Your task to perform on an android device: change the upload size in google photos Image 0: 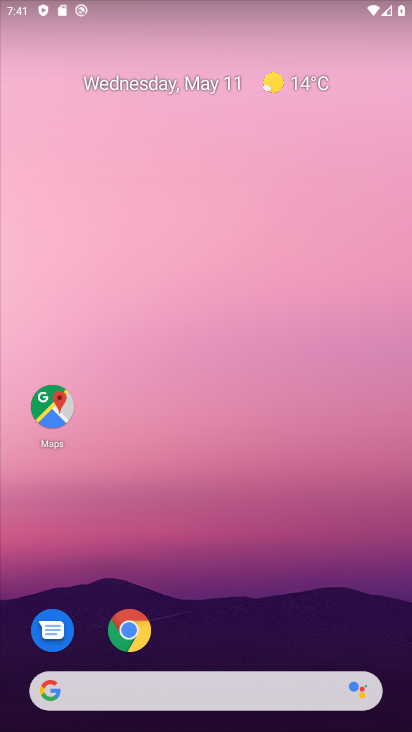
Step 0: drag from (246, 222) to (202, 109)
Your task to perform on an android device: change the upload size in google photos Image 1: 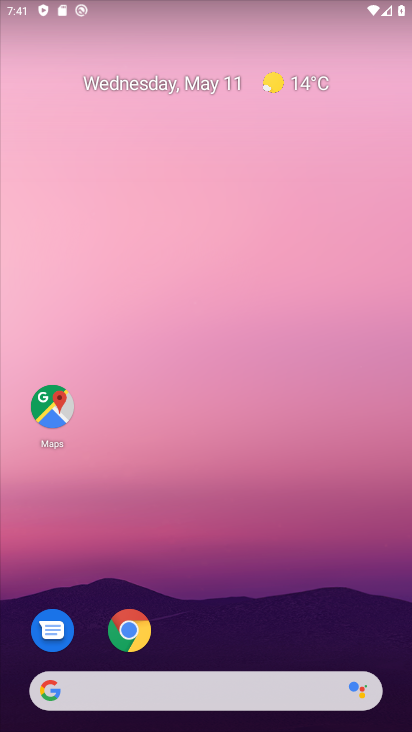
Step 1: drag from (172, 161) to (136, 82)
Your task to perform on an android device: change the upload size in google photos Image 2: 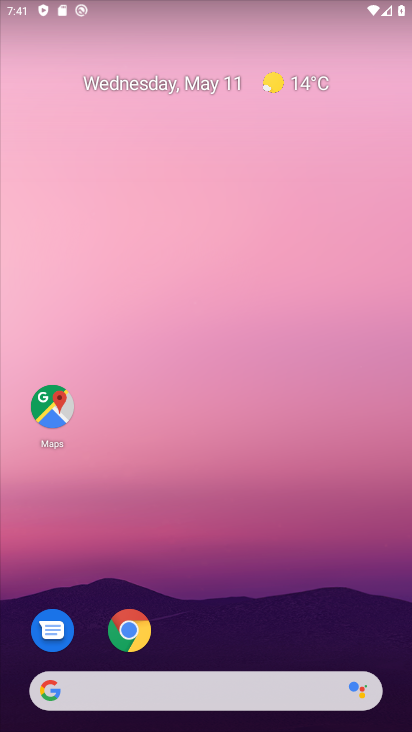
Step 2: drag from (323, 631) to (125, 1)
Your task to perform on an android device: change the upload size in google photos Image 3: 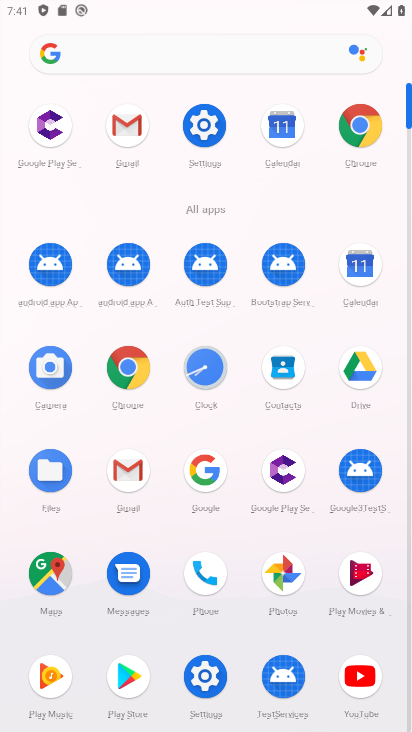
Step 3: drag from (265, 604) to (129, 14)
Your task to perform on an android device: change the upload size in google photos Image 4: 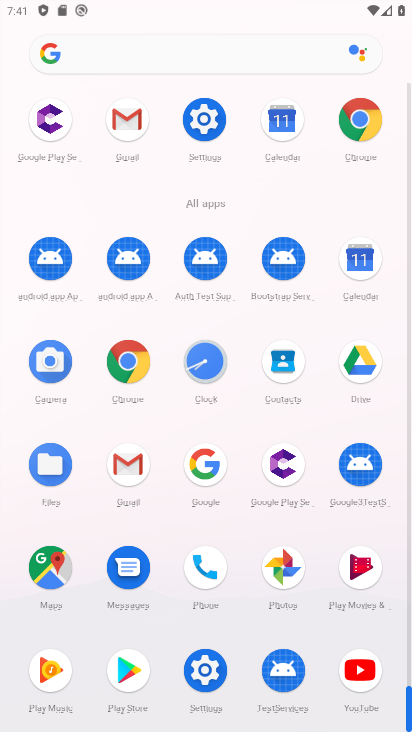
Step 4: click (273, 557)
Your task to perform on an android device: change the upload size in google photos Image 5: 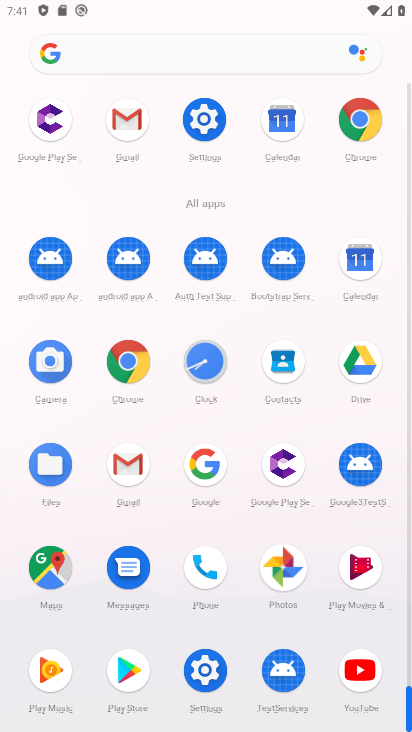
Step 5: click (274, 557)
Your task to perform on an android device: change the upload size in google photos Image 6: 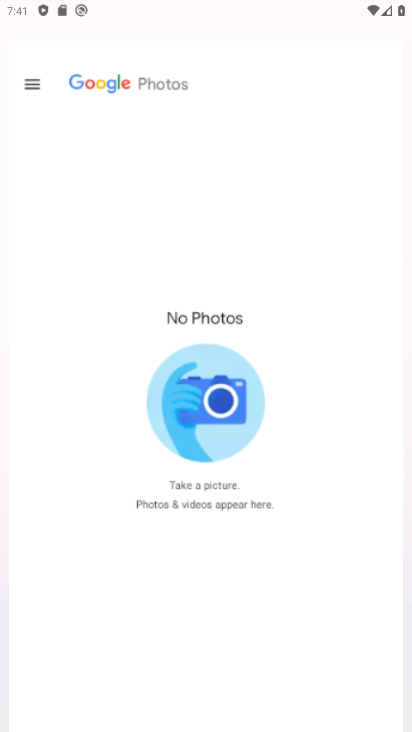
Step 6: click (275, 556)
Your task to perform on an android device: change the upload size in google photos Image 7: 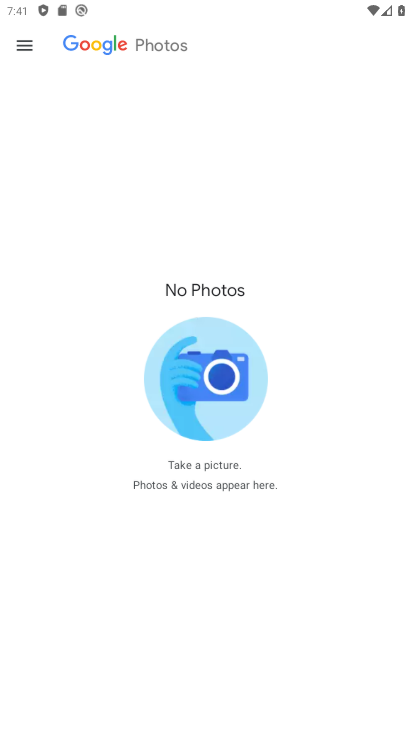
Step 7: click (279, 555)
Your task to perform on an android device: change the upload size in google photos Image 8: 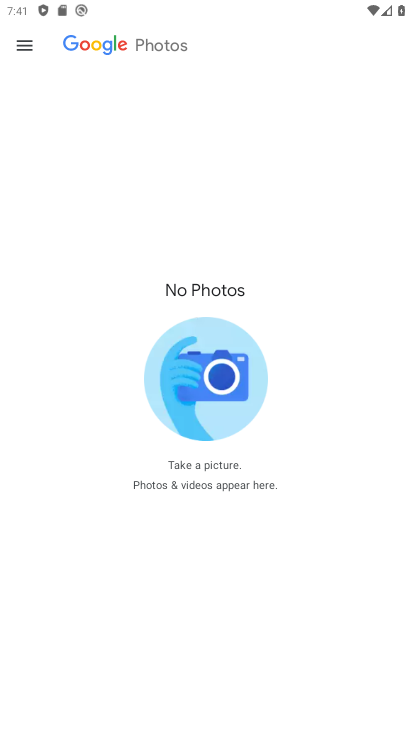
Step 8: click (28, 47)
Your task to perform on an android device: change the upload size in google photos Image 9: 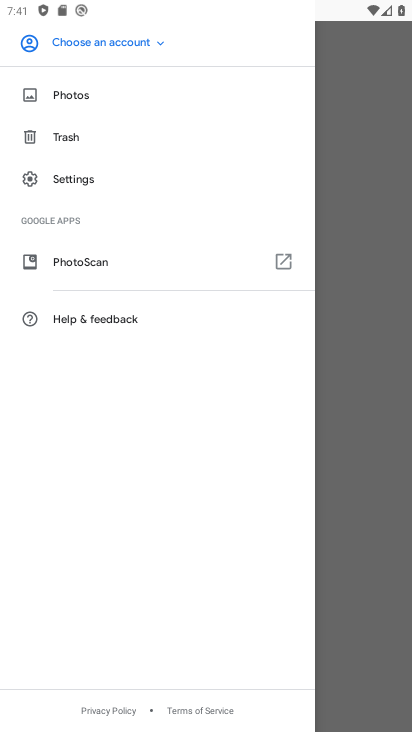
Step 9: click (54, 181)
Your task to perform on an android device: change the upload size in google photos Image 10: 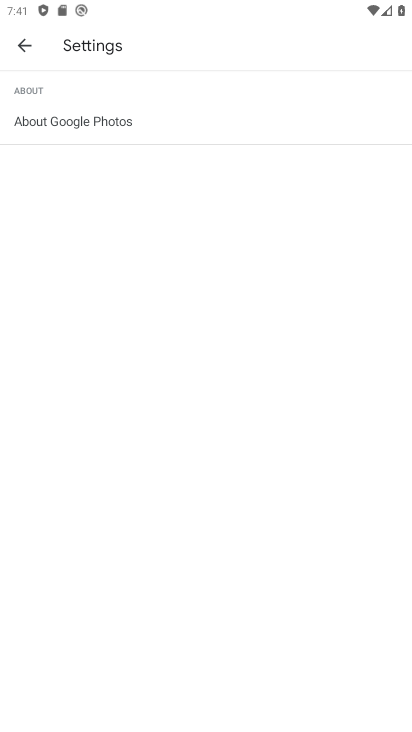
Step 10: click (20, 44)
Your task to perform on an android device: change the upload size in google photos Image 11: 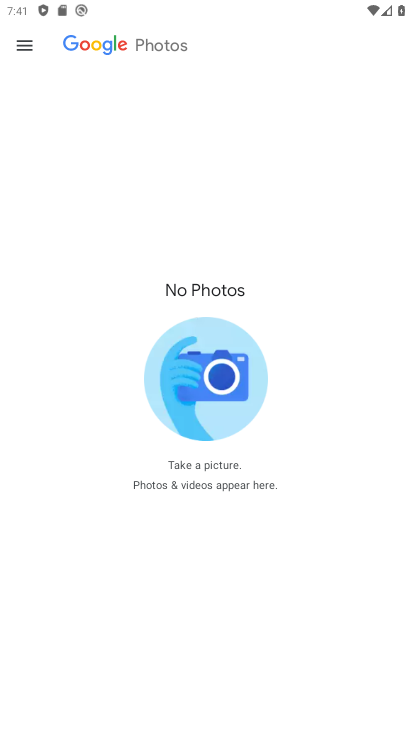
Step 11: click (26, 48)
Your task to perform on an android device: change the upload size in google photos Image 12: 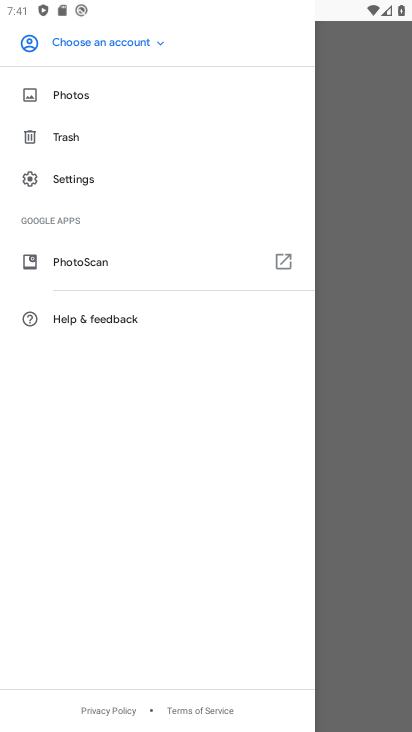
Step 12: click (65, 178)
Your task to perform on an android device: change the upload size in google photos Image 13: 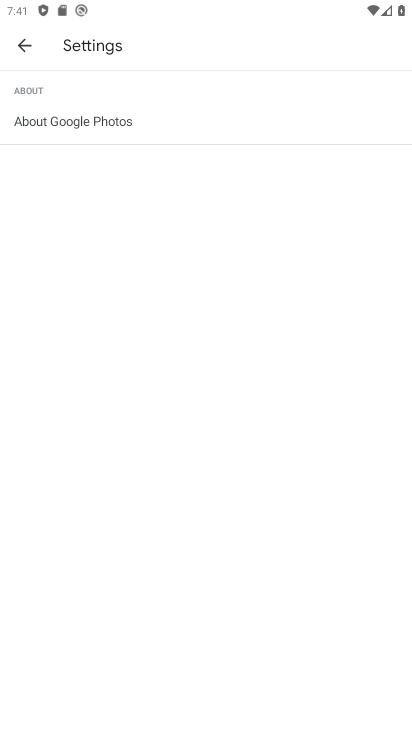
Step 13: drag from (225, 530) to (127, 181)
Your task to perform on an android device: change the upload size in google photos Image 14: 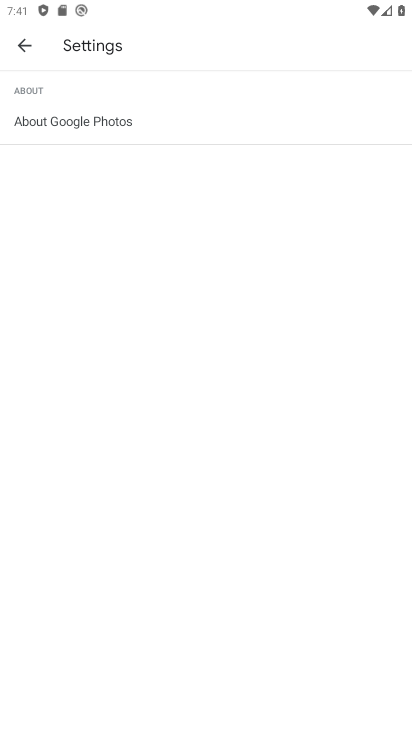
Step 14: click (23, 40)
Your task to perform on an android device: change the upload size in google photos Image 15: 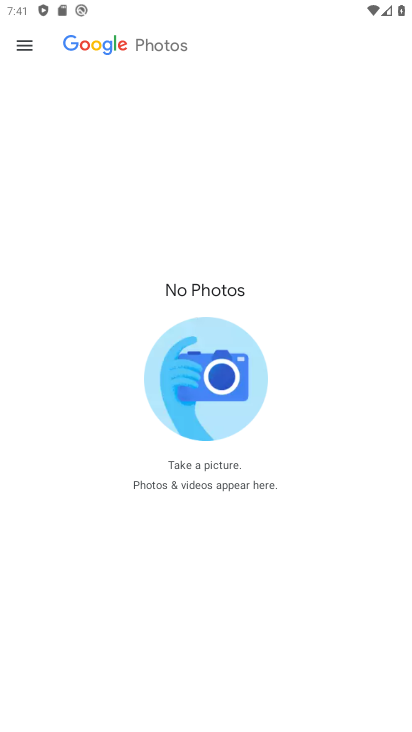
Step 15: click (28, 50)
Your task to perform on an android device: change the upload size in google photos Image 16: 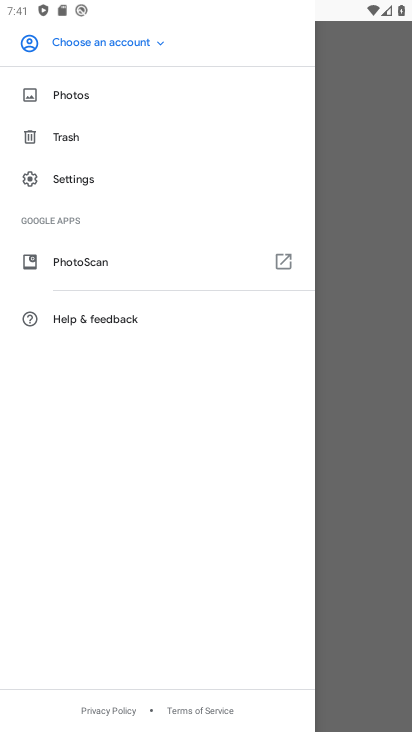
Step 16: drag from (112, 158) to (61, 605)
Your task to perform on an android device: change the upload size in google photos Image 17: 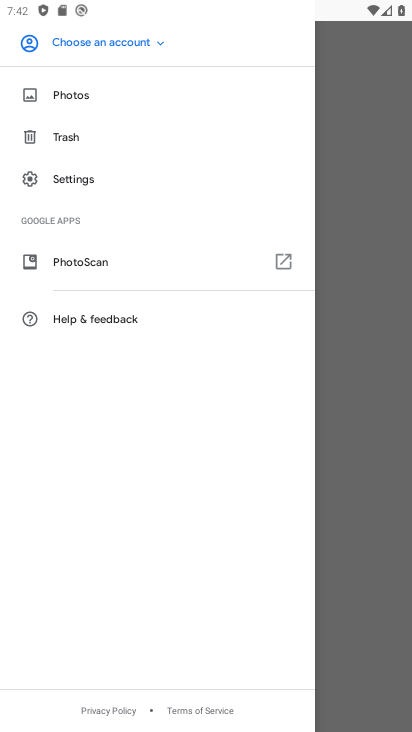
Step 17: click (82, 178)
Your task to perform on an android device: change the upload size in google photos Image 18: 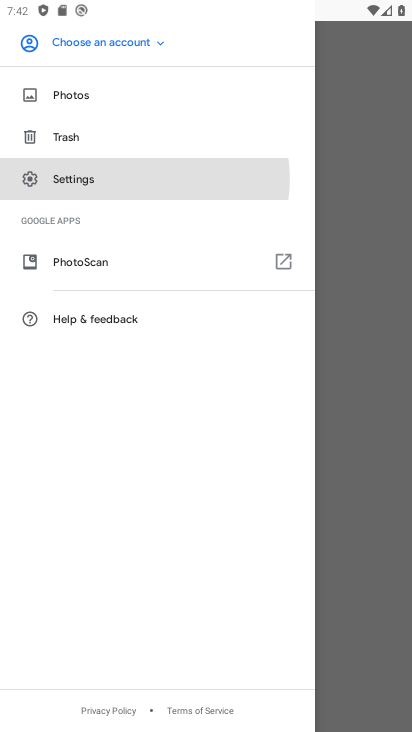
Step 18: click (82, 178)
Your task to perform on an android device: change the upload size in google photos Image 19: 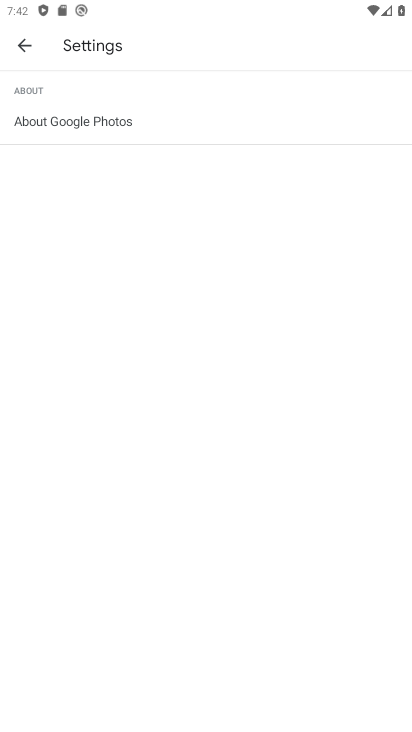
Step 19: click (110, 114)
Your task to perform on an android device: change the upload size in google photos Image 20: 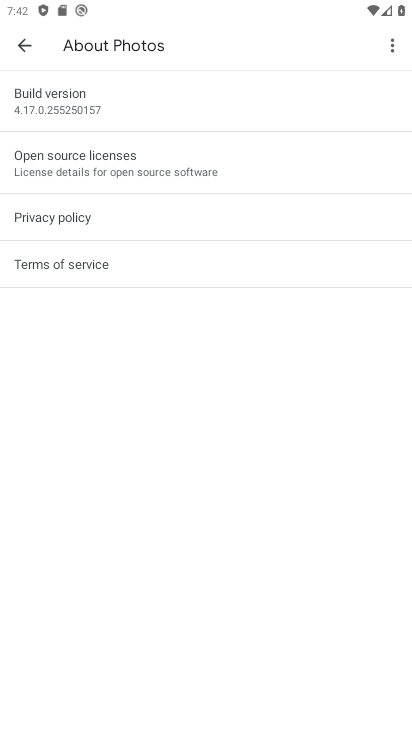
Step 20: task complete